Your task to perform on an android device: Open the stopwatch Image 0: 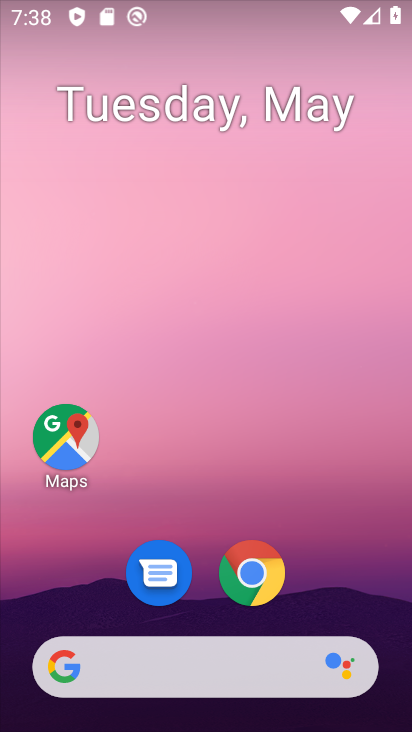
Step 0: drag from (185, 631) to (235, 201)
Your task to perform on an android device: Open the stopwatch Image 1: 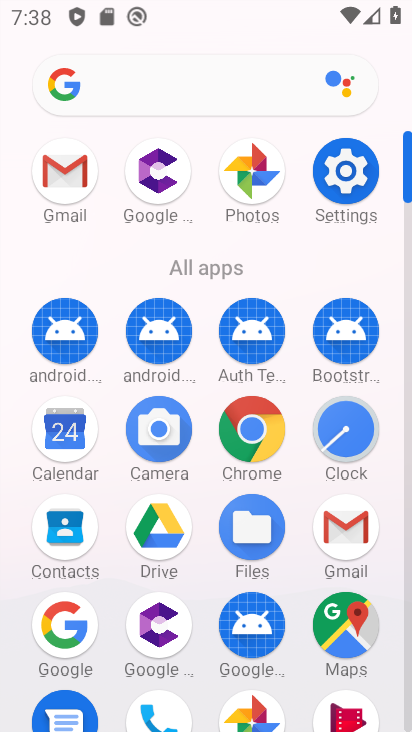
Step 1: click (351, 430)
Your task to perform on an android device: Open the stopwatch Image 2: 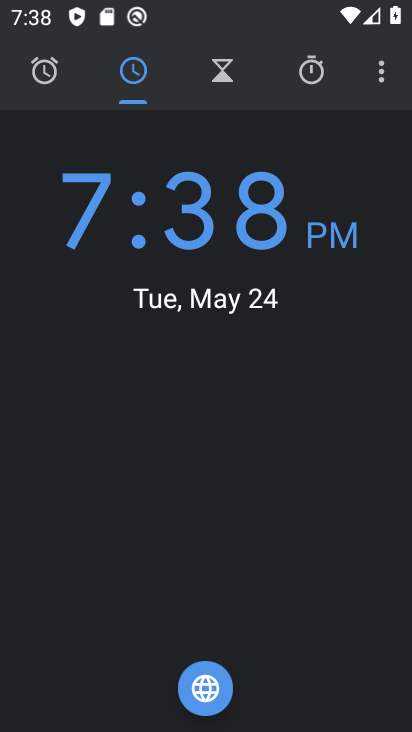
Step 2: click (301, 69)
Your task to perform on an android device: Open the stopwatch Image 3: 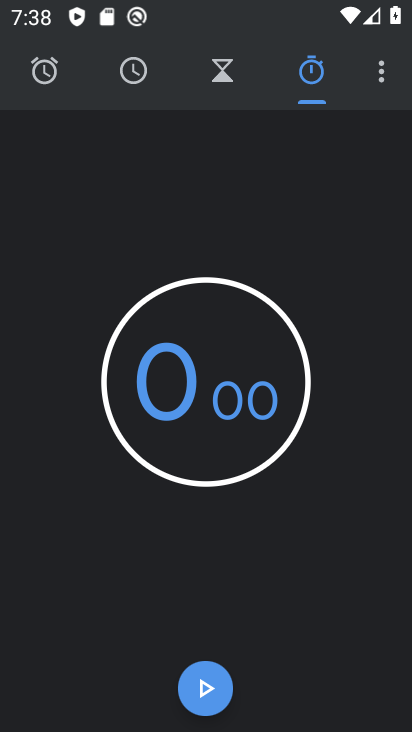
Step 3: task complete